Your task to perform on an android device: Check the news Image 0: 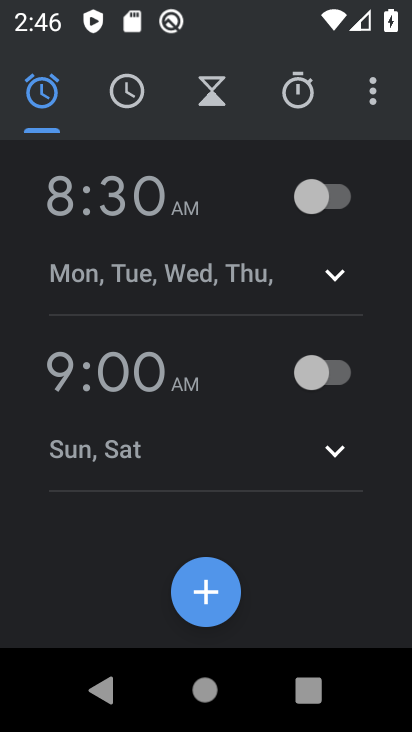
Step 0: press home button
Your task to perform on an android device: Check the news Image 1: 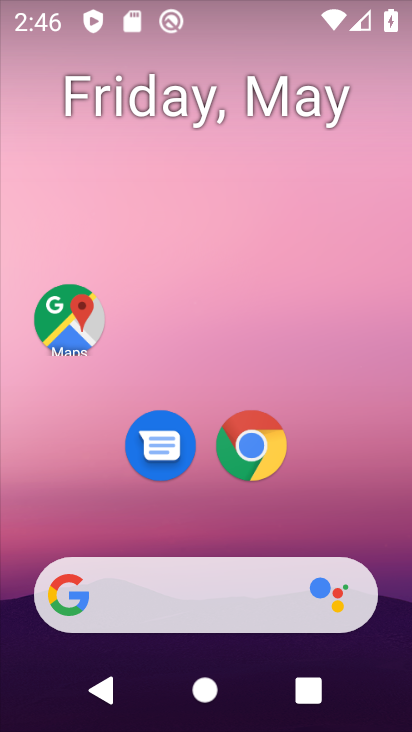
Step 1: drag from (301, 565) to (252, 208)
Your task to perform on an android device: Check the news Image 2: 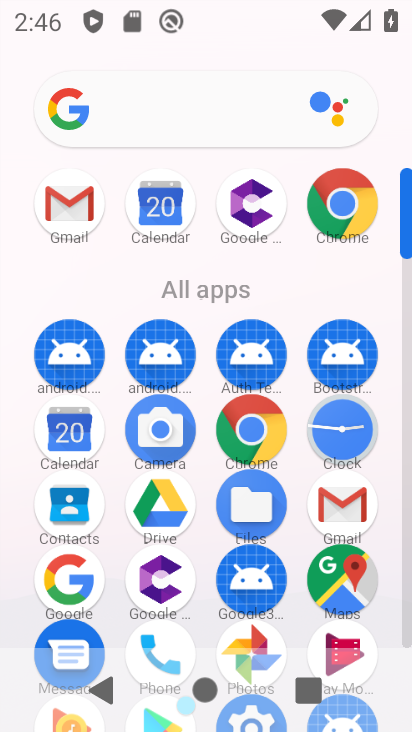
Step 2: drag from (254, 480) to (190, 172)
Your task to perform on an android device: Check the news Image 3: 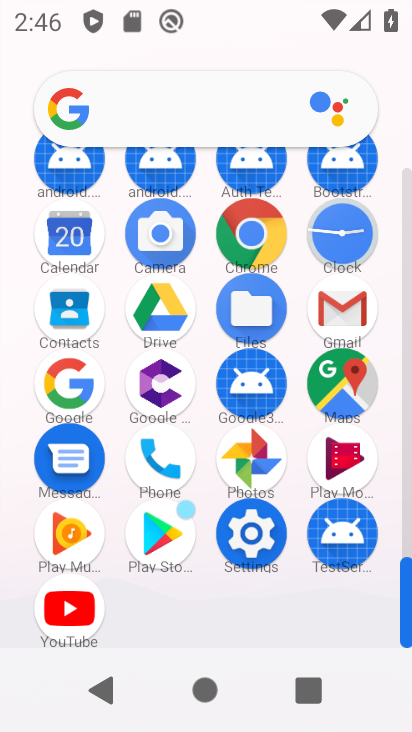
Step 3: click (89, 392)
Your task to perform on an android device: Check the news Image 4: 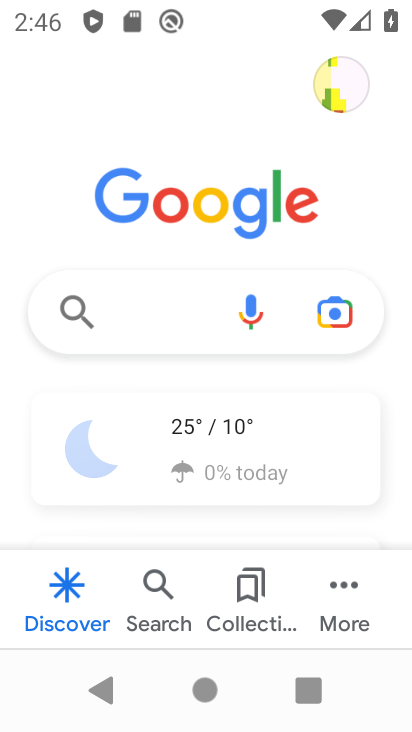
Step 4: click (151, 315)
Your task to perform on an android device: Check the news Image 5: 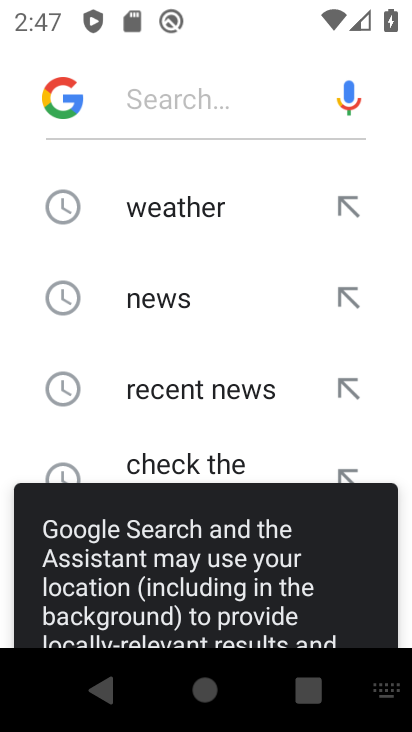
Step 5: click (151, 314)
Your task to perform on an android device: Check the news Image 6: 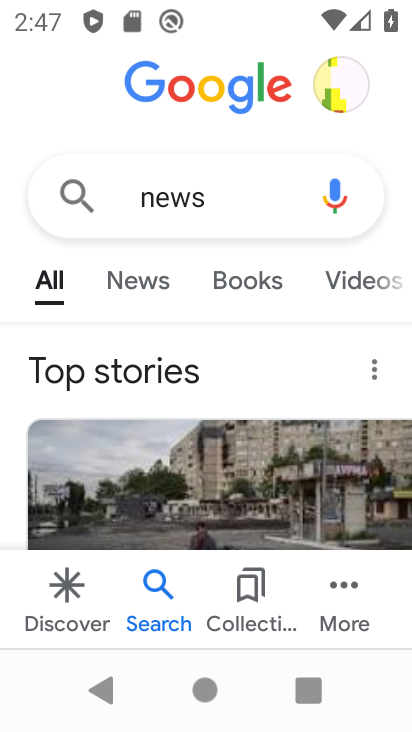
Step 6: click (135, 277)
Your task to perform on an android device: Check the news Image 7: 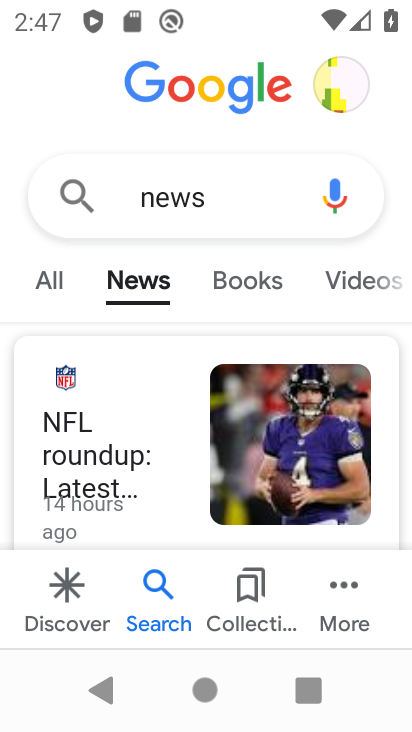
Step 7: task complete